Your task to perform on an android device: open app "Airtel Thanks" (install if not already installed) Image 0: 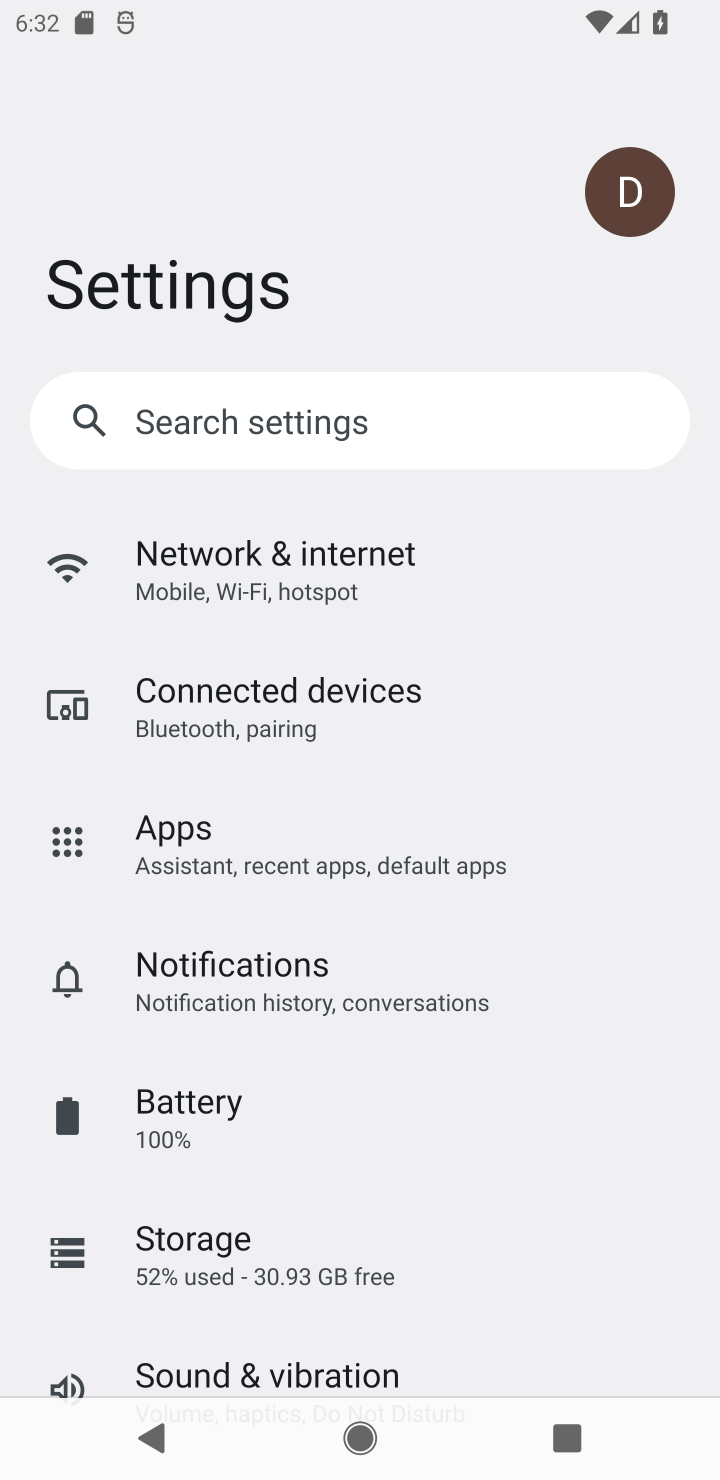
Step 0: press back button
Your task to perform on an android device: open app "Airtel Thanks" (install if not already installed) Image 1: 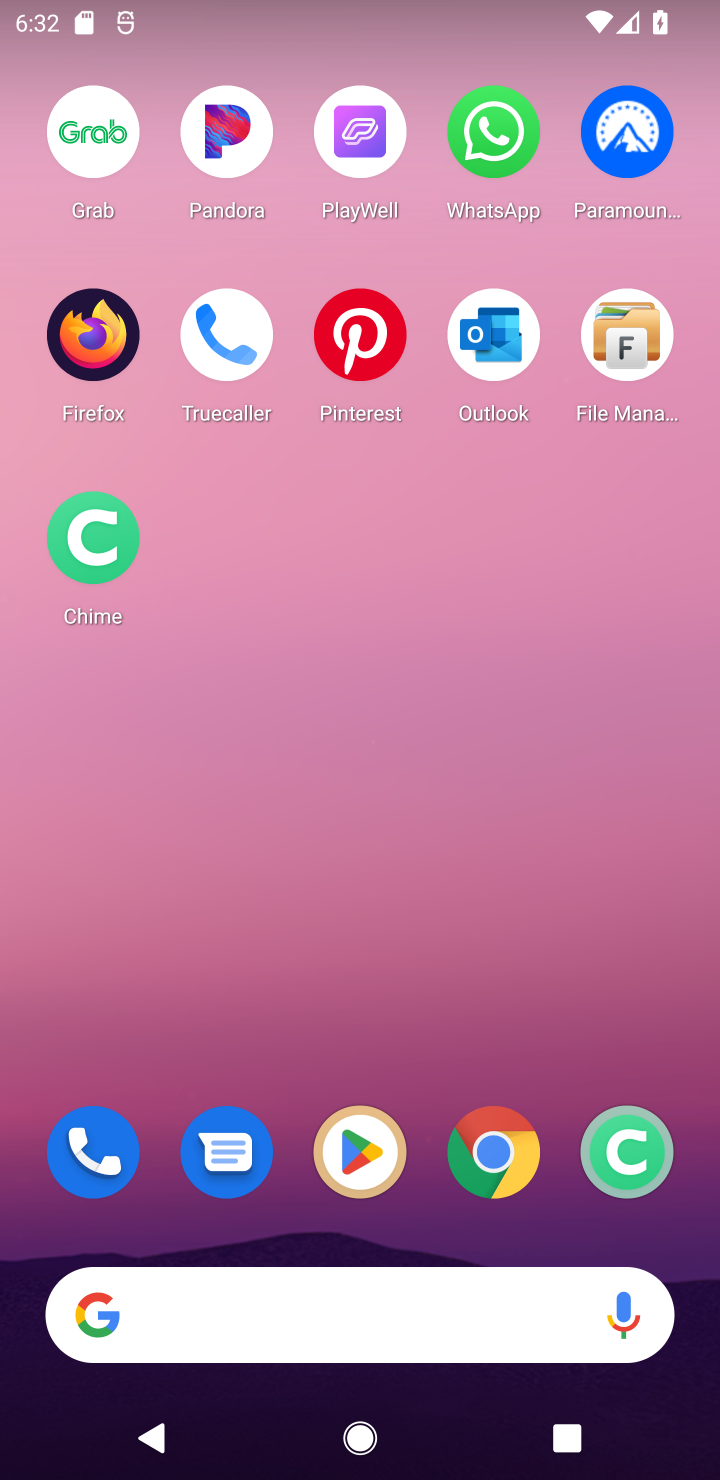
Step 1: click (329, 1170)
Your task to perform on an android device: open app "Airtel Thanks" (install if not already installed) Image 2: 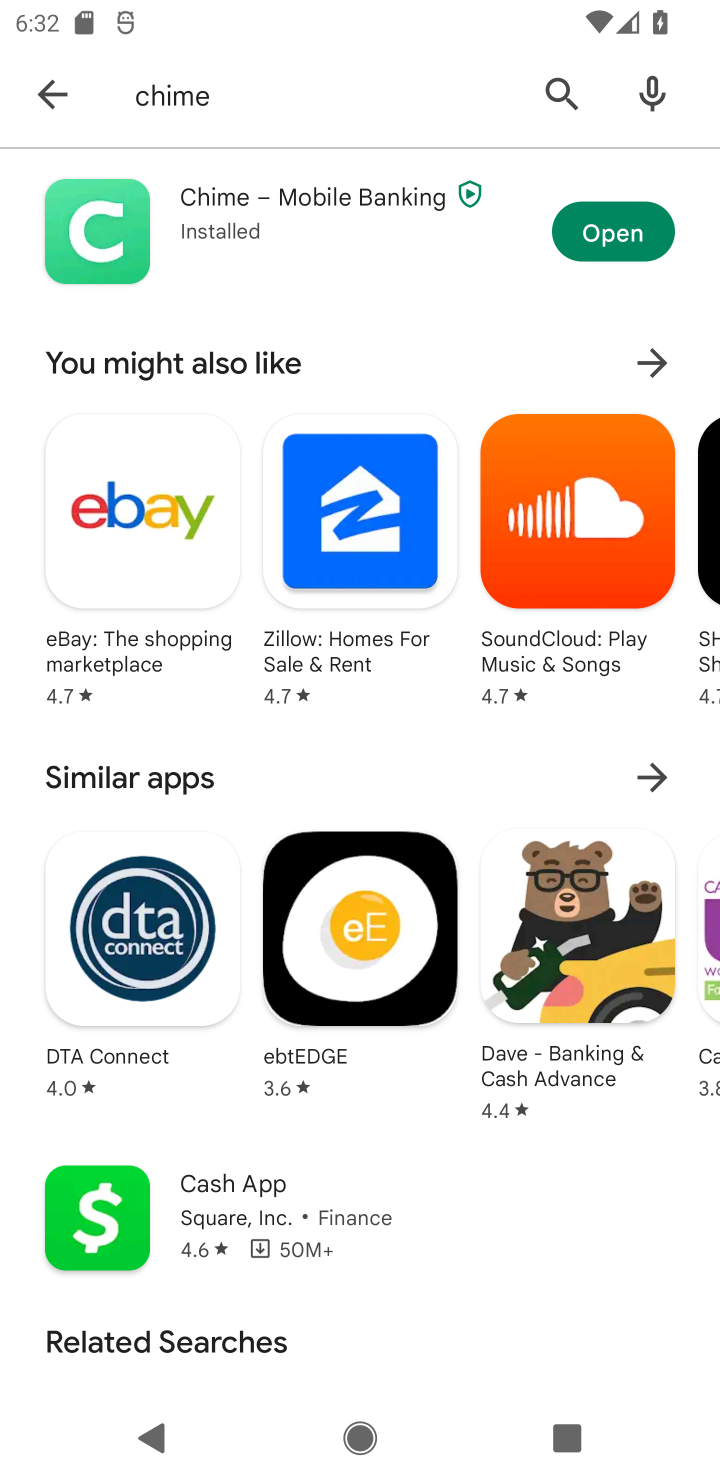
Step 2: click (565, 79)
Your task to perform on an android device: open app "Airtel Thanks" (install if not already installed) Image 3: 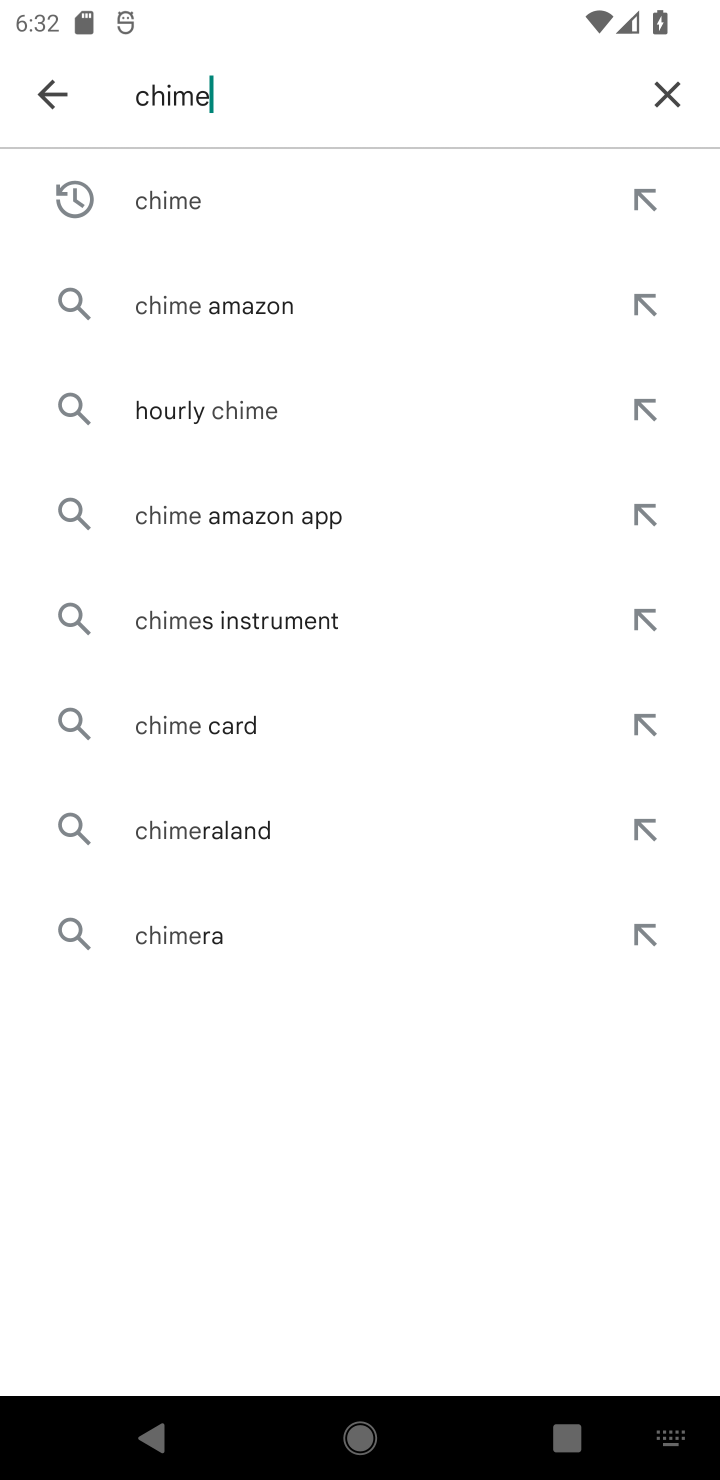
Step 3: click (668, 97)
Your task to perform on an android device: open app "Airtel Thanks" (install if not already installed) Image 4: 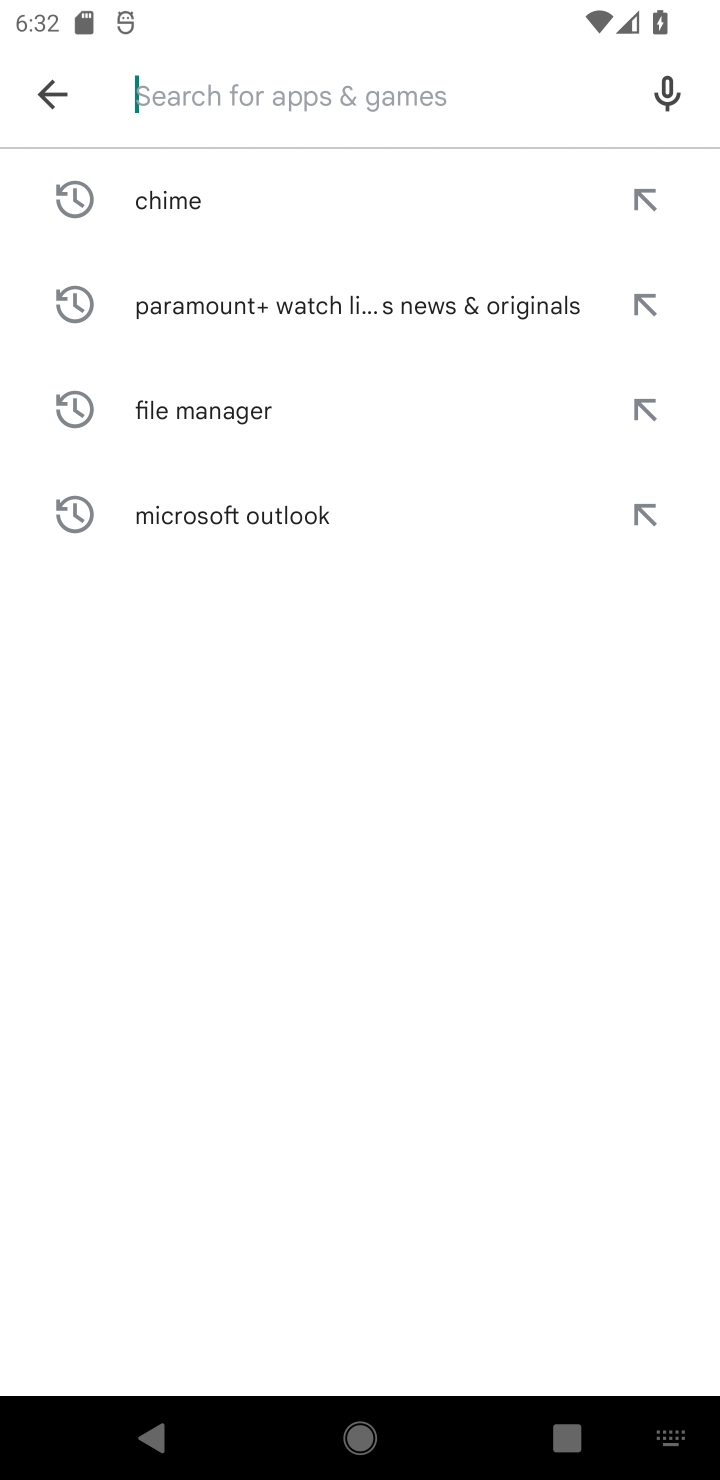
Step 4: click (220, 111)
Your task to perform on an android device: open app "Airtel Thanks" (install if not already installed) Image 5: 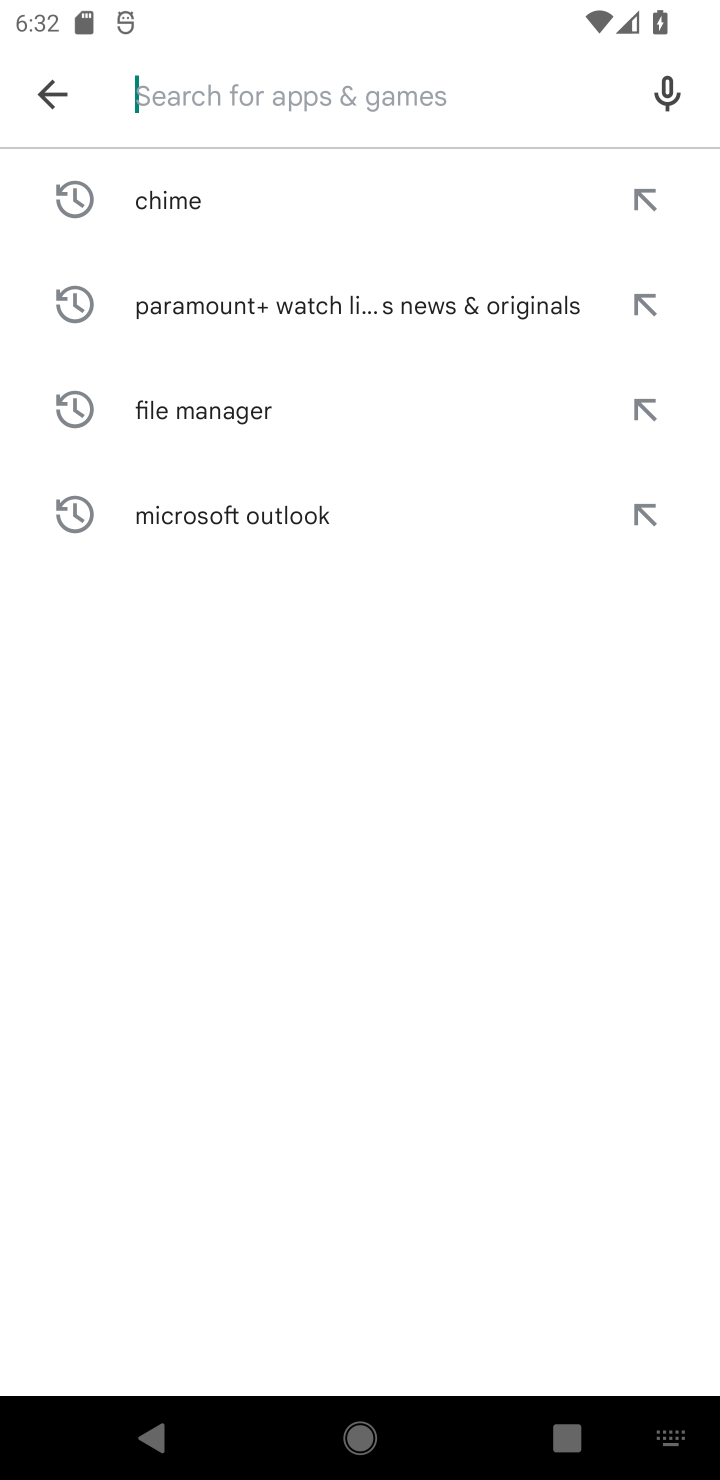
Step 5: type "Airtel Thanks"
Your task to perform on an android device: open app "Airtel Thanks" (install if not already installed) Image 6: 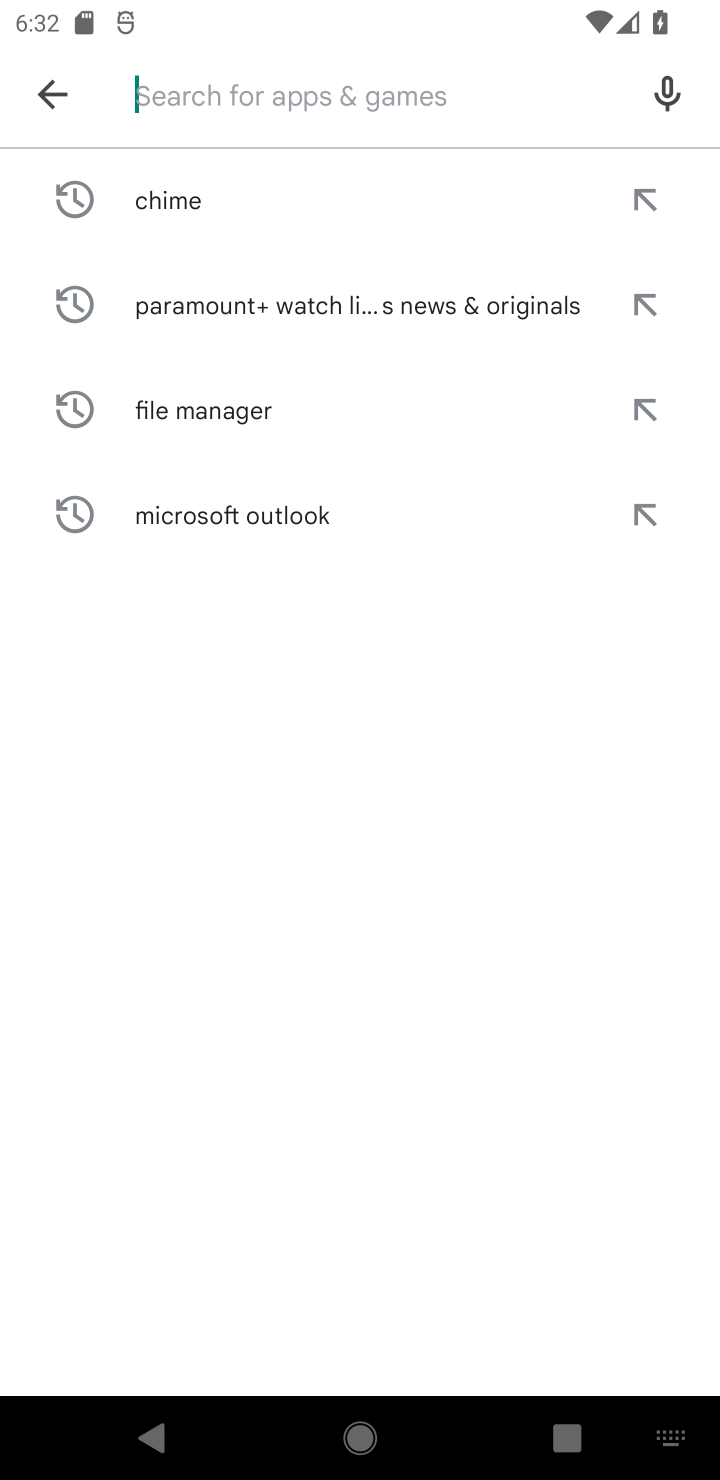
Step 6: click (426, 1046)
Your task to perform on an android device: open app "Airtel Thanks" (install if not already installed) Image 7: 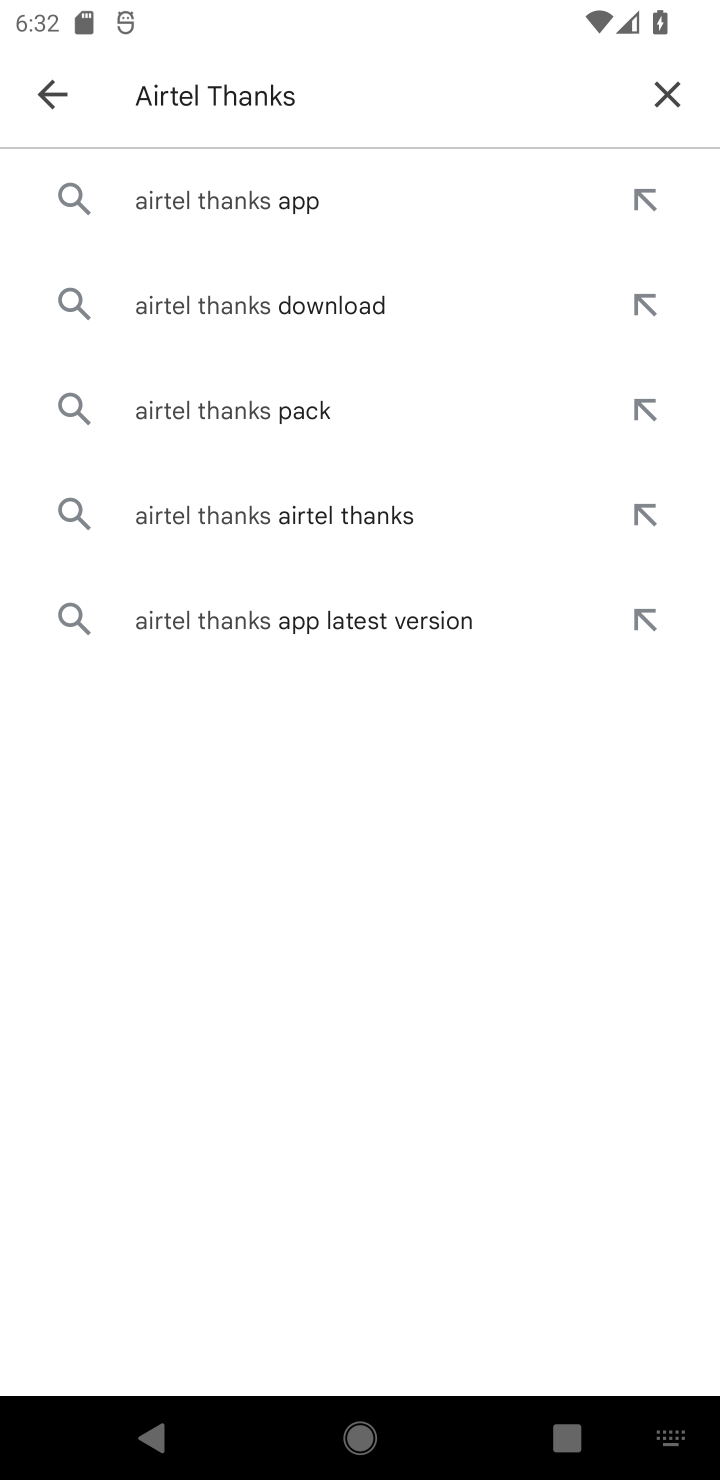
Step 7: click (268, 194)
Your task to perform on an android device: open app "Airtel Thanks" (install if not already installed) Image 8: 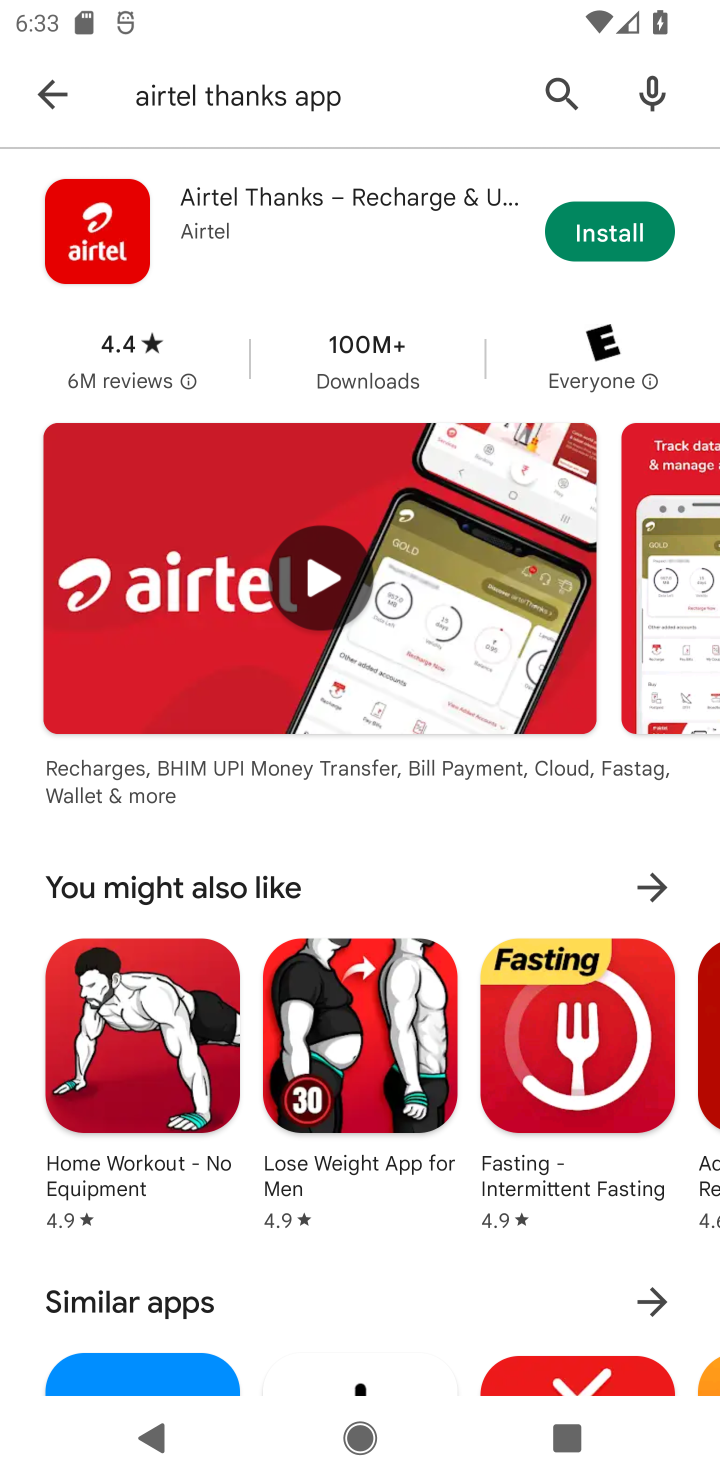
Step 8: click (617, 232)
Your task to perform on an android device: open app "Airtel Thanks" (install if not already installed) Image 9: 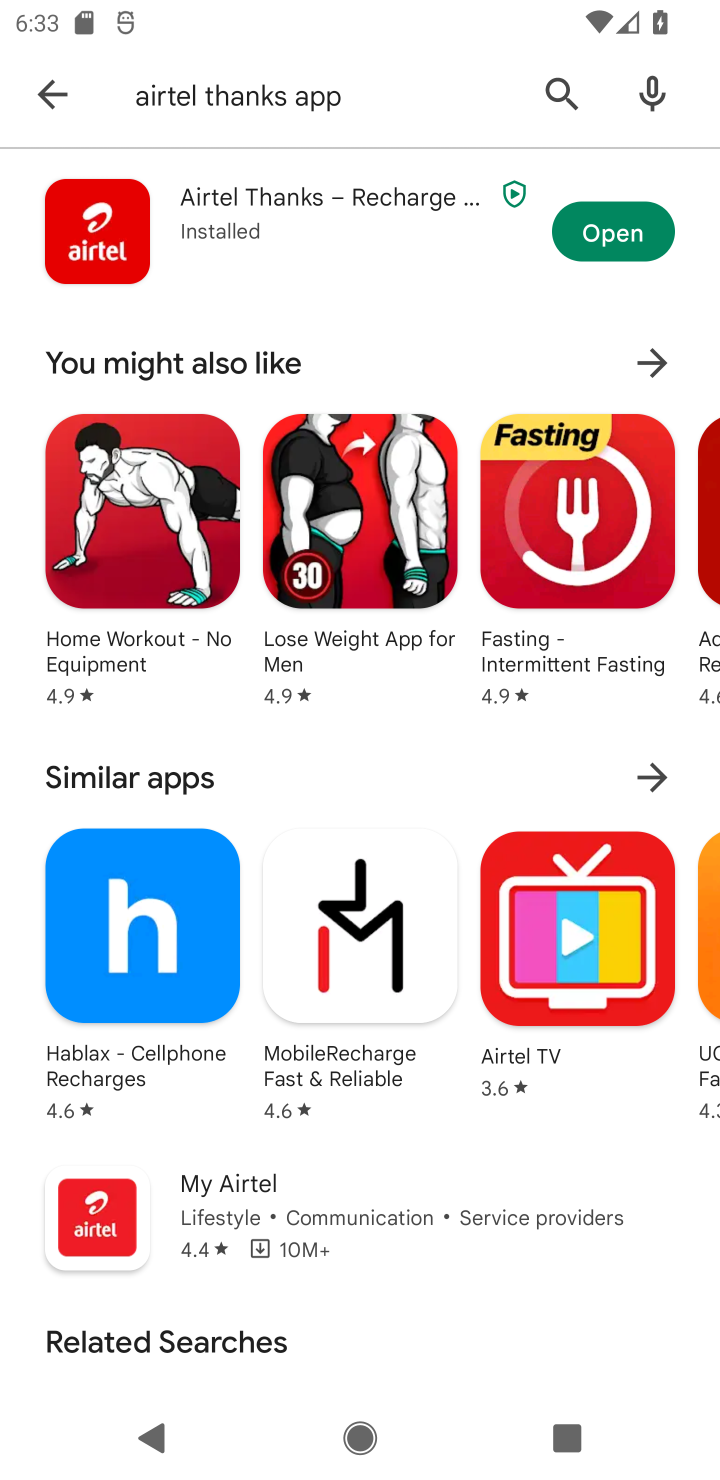
Step 9: click (623, 250)
Your task to perform on an android device: open app "Airtel Thanks" (install if not already installed) Image 10: 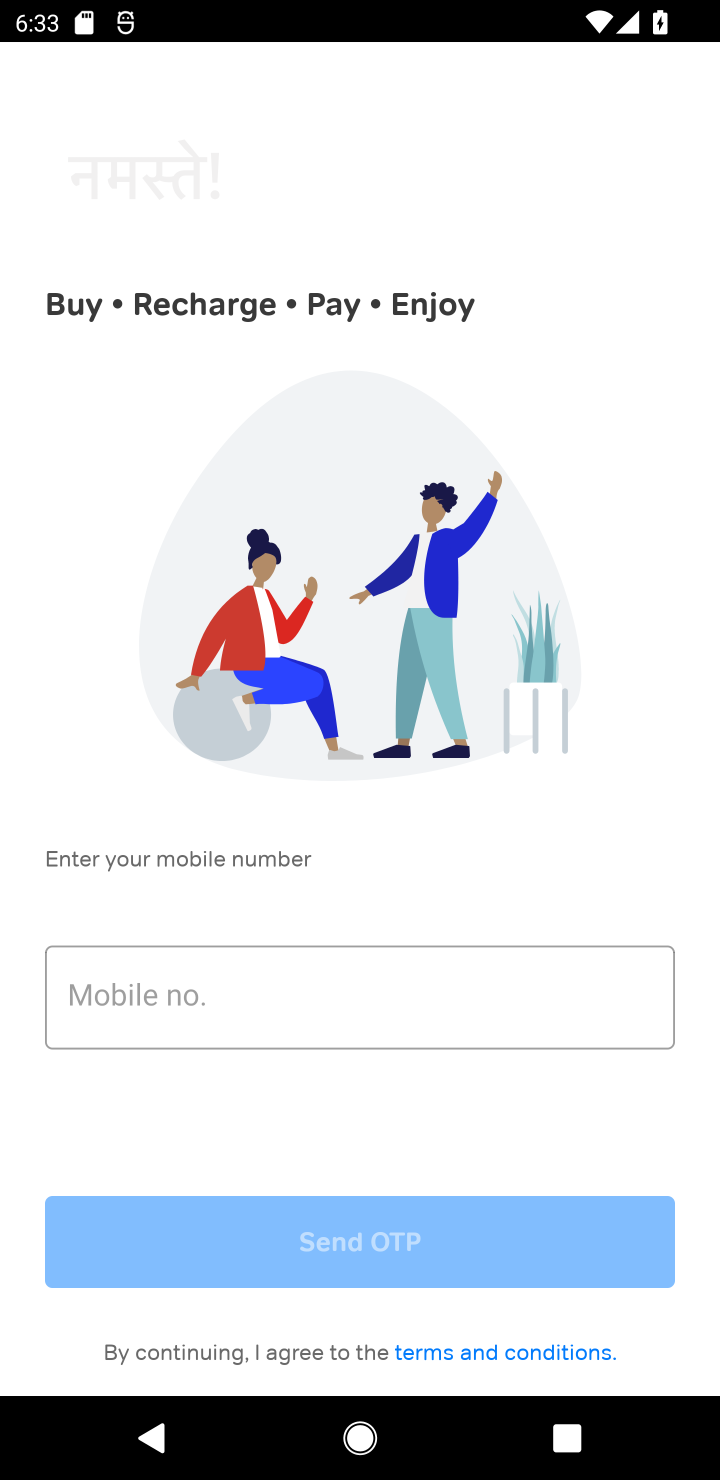
Step 10: task complete